Your task to perform on an android device: Empty the shopping cart on bestbuy.com. Add "duracell triple a" to the cart on bestbuy.com Image 0: 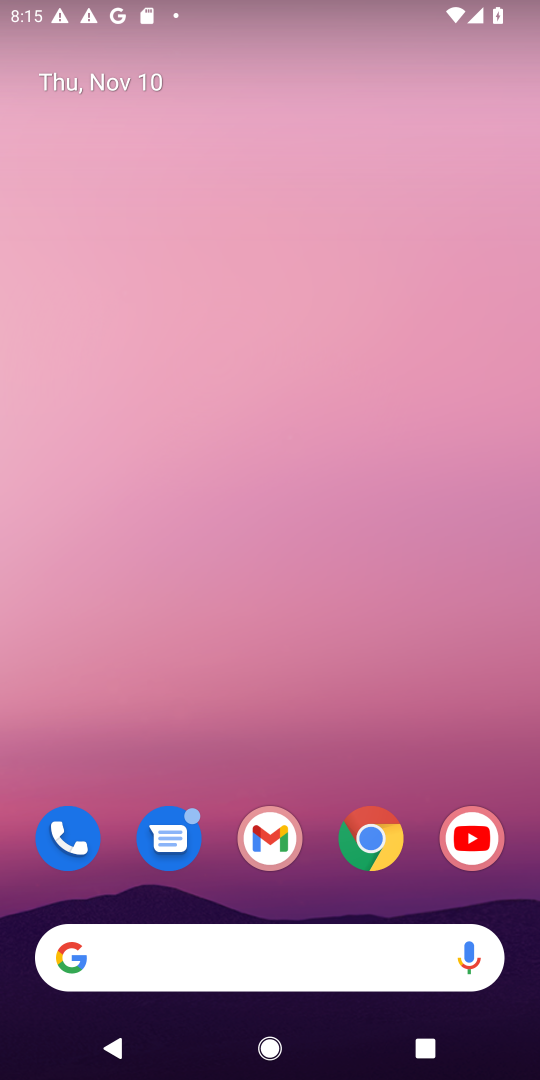
Step 0: drag from (325, 907) to (492, 54)
Your task to perform on an android device: Empty the shopping cart on bestbuy.com. Add "duracell triple a" to the cart on bestbuy.com Image 1: 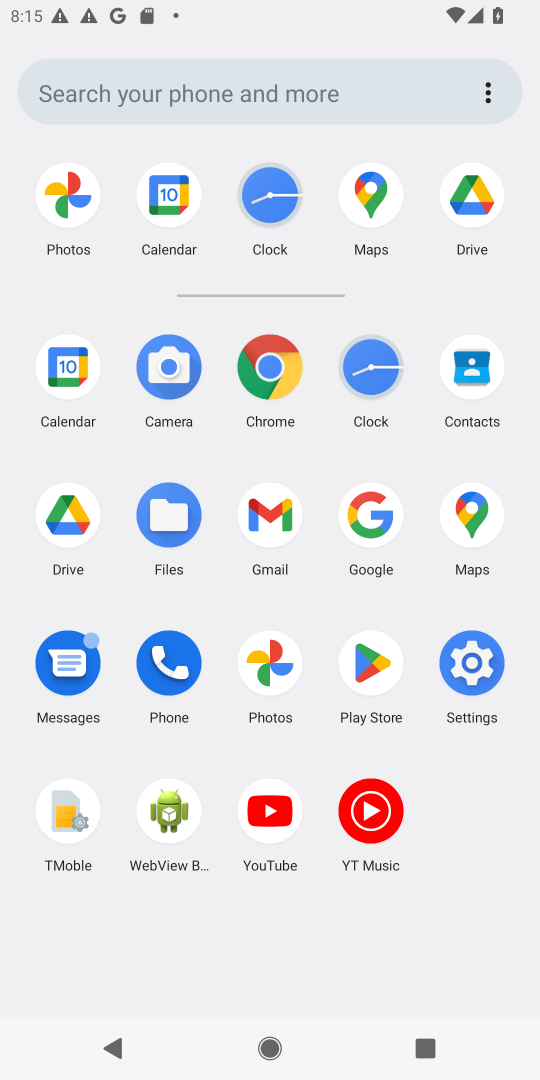
Step 1: click (276, 368)
Your task to perform on an android device: Empty the shopping cart on bestbuy.com. Add "duracell triple a" to the cart on bestbuy.com Image 2: 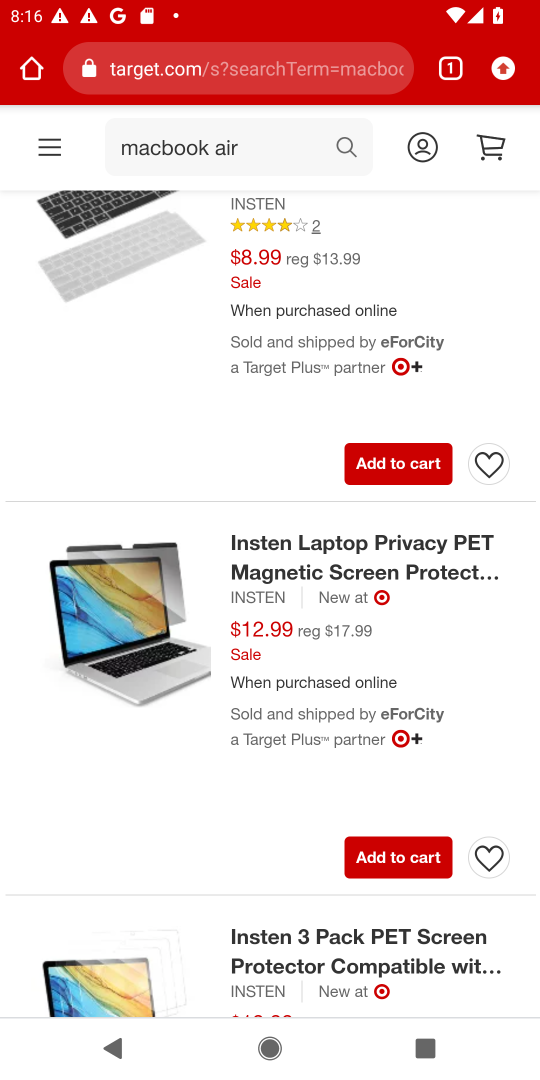
Step 2: click (243, 76)
Your task to perform on an android device: Empty the shopping cart on bestbuy.com. Add "duracell triple a" to the cart on bestbuy.com Image 3: 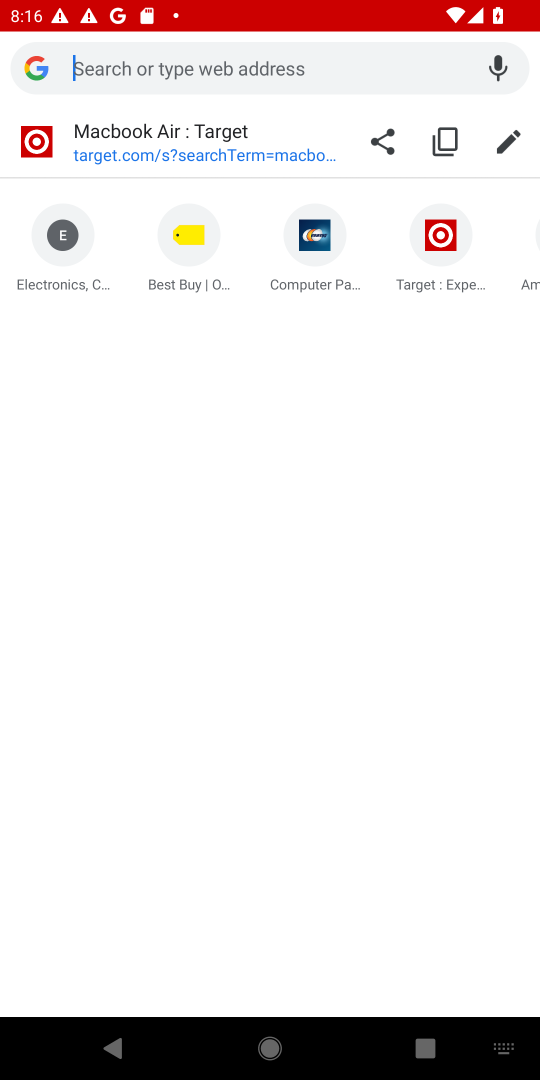
Step 3: type " bestbuy.com"
Your task to perform on an android device: Empty the shopping cart on bestbuy.com. Add "duracell triple a" to the cart on bestbuy.com Image 4: 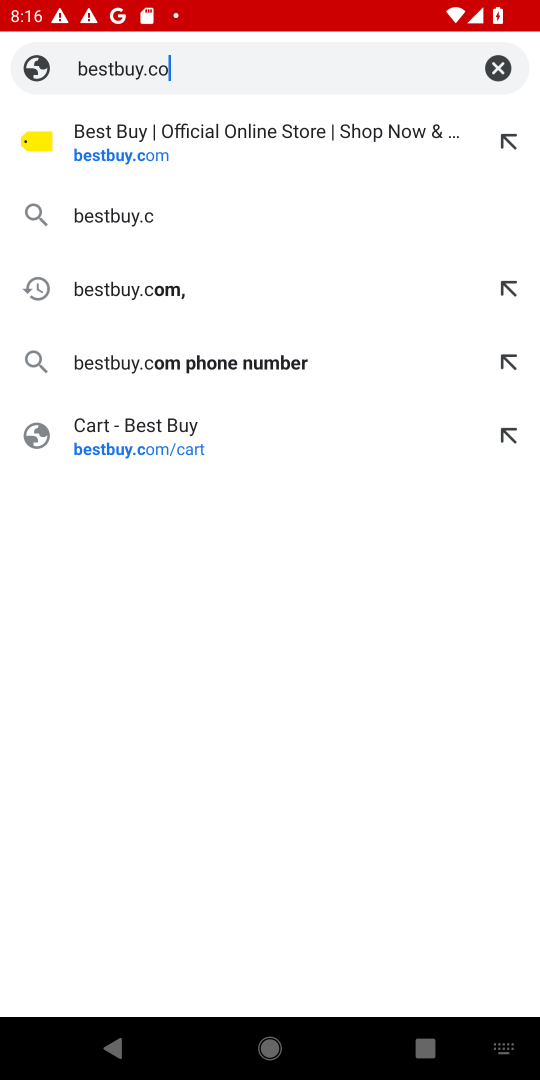
Step 4: press enter
Your task to perform on an android device: Empty the shopping cart on bestbuy.com. Add "duracell triple a" to the cart on bestbuy.com Image 5: 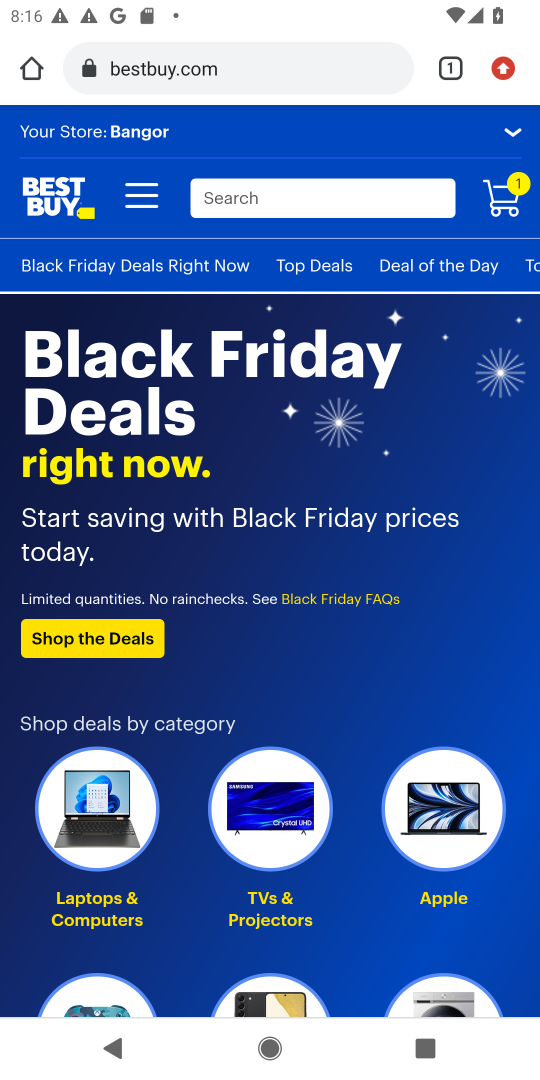
Step 5: click (500, 204)
Your task to perform on an android device: Empty the shopping cart on bestbuy.com. Add "duracell triple a" to the cart on bestbuy.com Image 6: 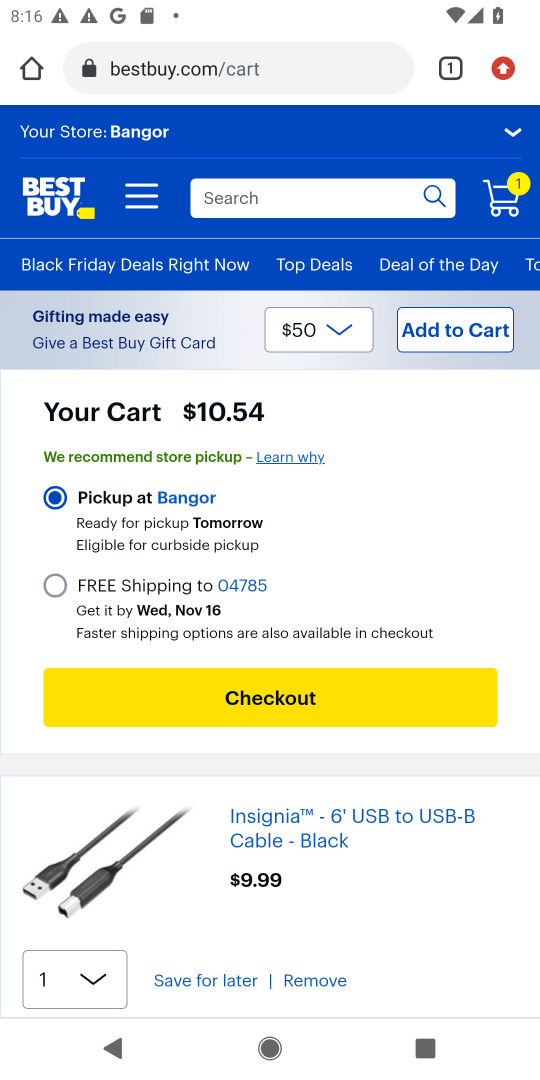
Step 6: click (320, 977)
Your task to perform on an android device: Empty the shopping cart on bestbuy.com. Add "duracell triple a" to the cart on bestbuy.com Image 7: 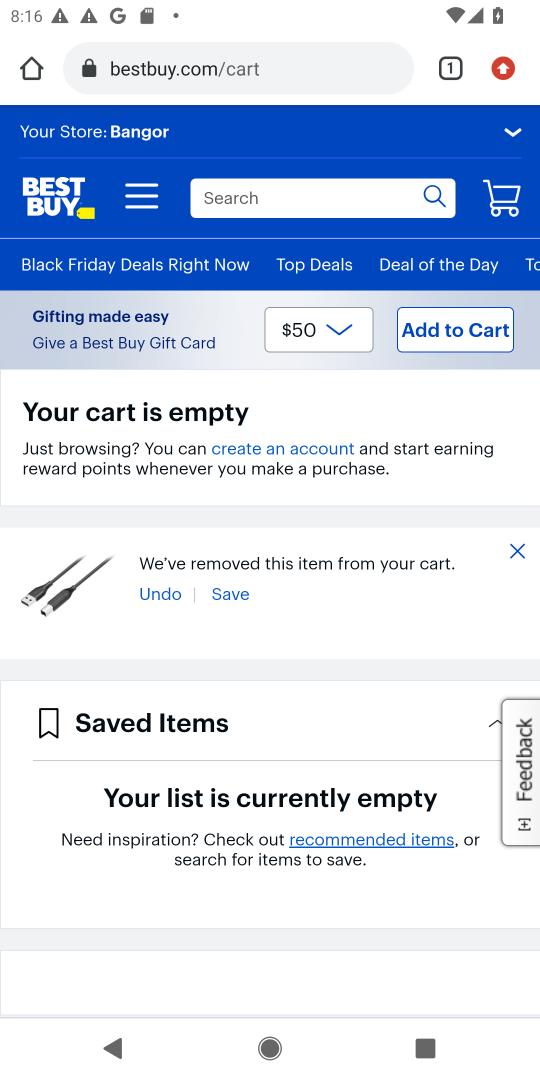
Step 7: click (518, 548)
Your task to perform on an android device: Empty the shopping cart on bestbuy.com. Add "duracell triple a" to the cart on bestbuy.com Image 8: 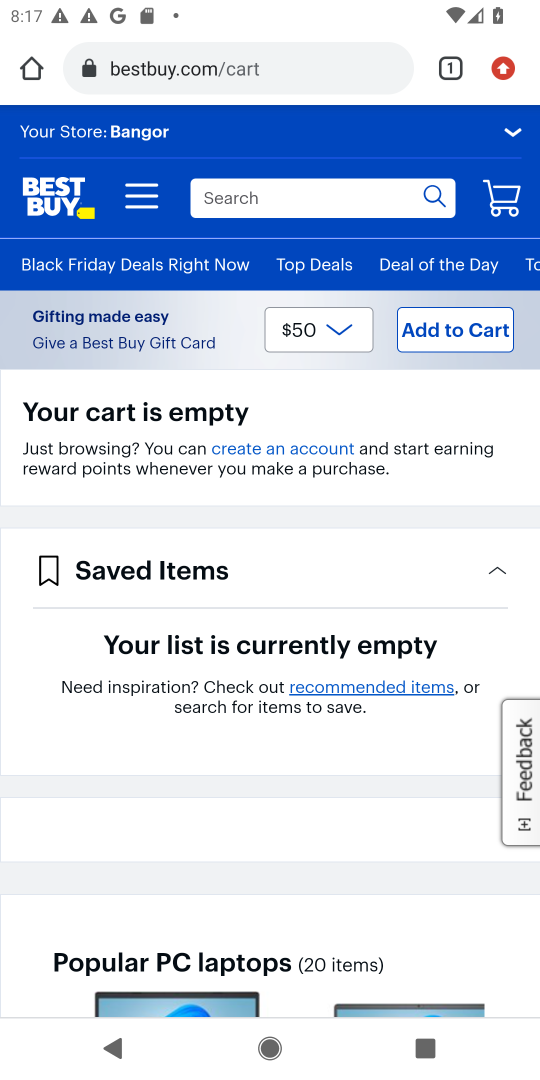
Step 8: click (305, 205)
Your task to perform on an android device: Empty the shopping cart on bestbuy.com. Add "duracell triple a" to the cart on bestbuy.com Image 9: 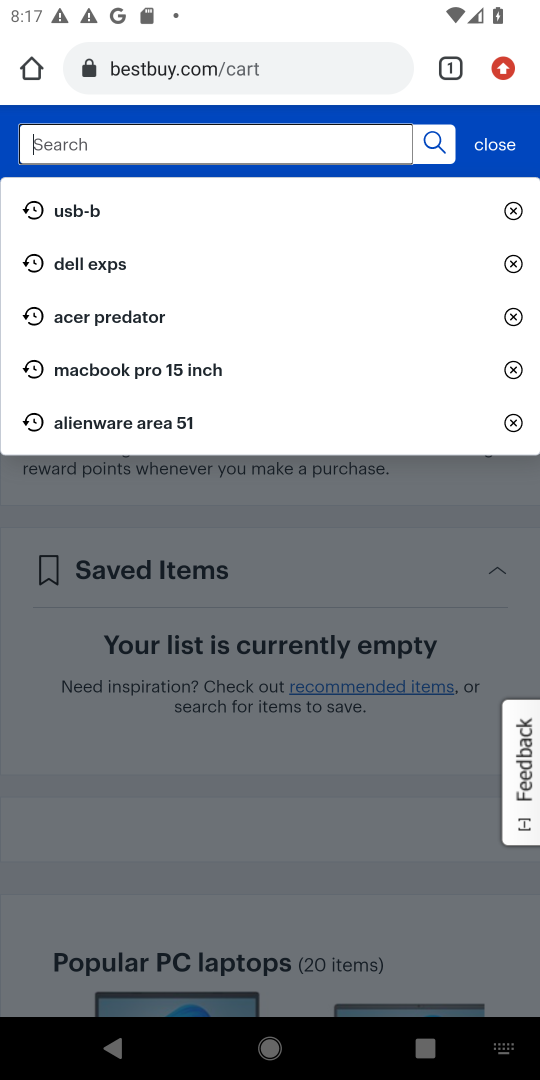
Step 9: type "duracell triple a"
Your task to perform on an android device: Empty the shopping cart on bestbuy.com. Add "duracell triple a" to the cart on bestbuy.com Image 10: 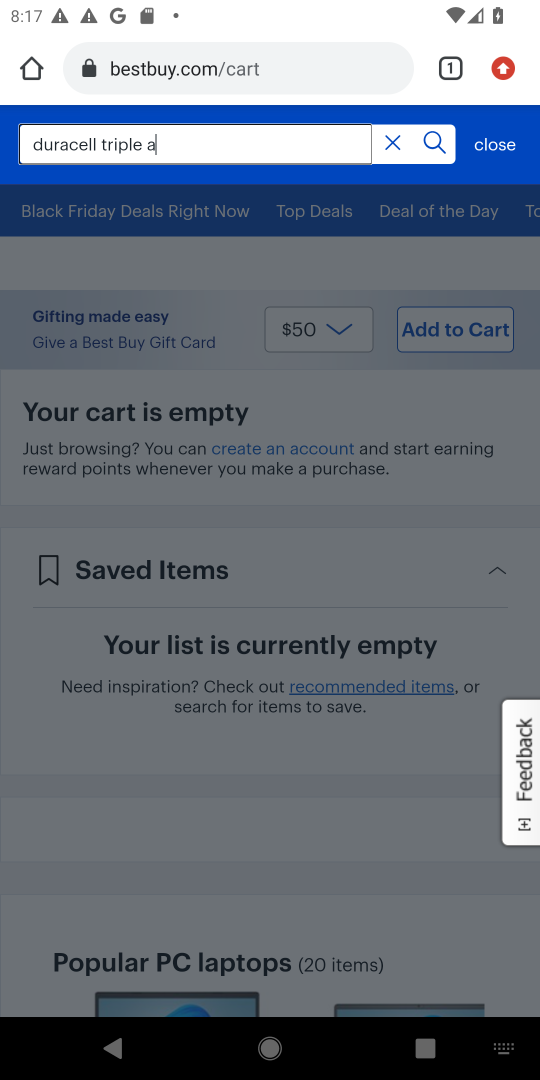
Step 10: press enter
Your task to perform on an android device: Empty the shopping cart on bestbuy.com. Add "duracell triple a" to the cart on bestbuy.com Image 11: 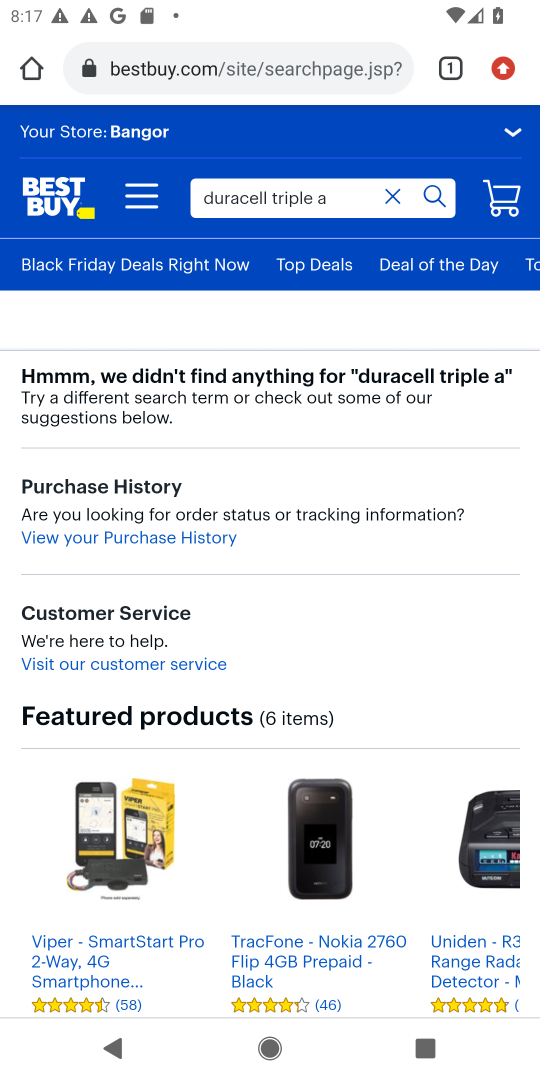
Step 11: task complete